Your task to perform on an android device: Search for "macbook pro 15 inch" on walmart, select the first entry, and add it to the cart. Image 0: 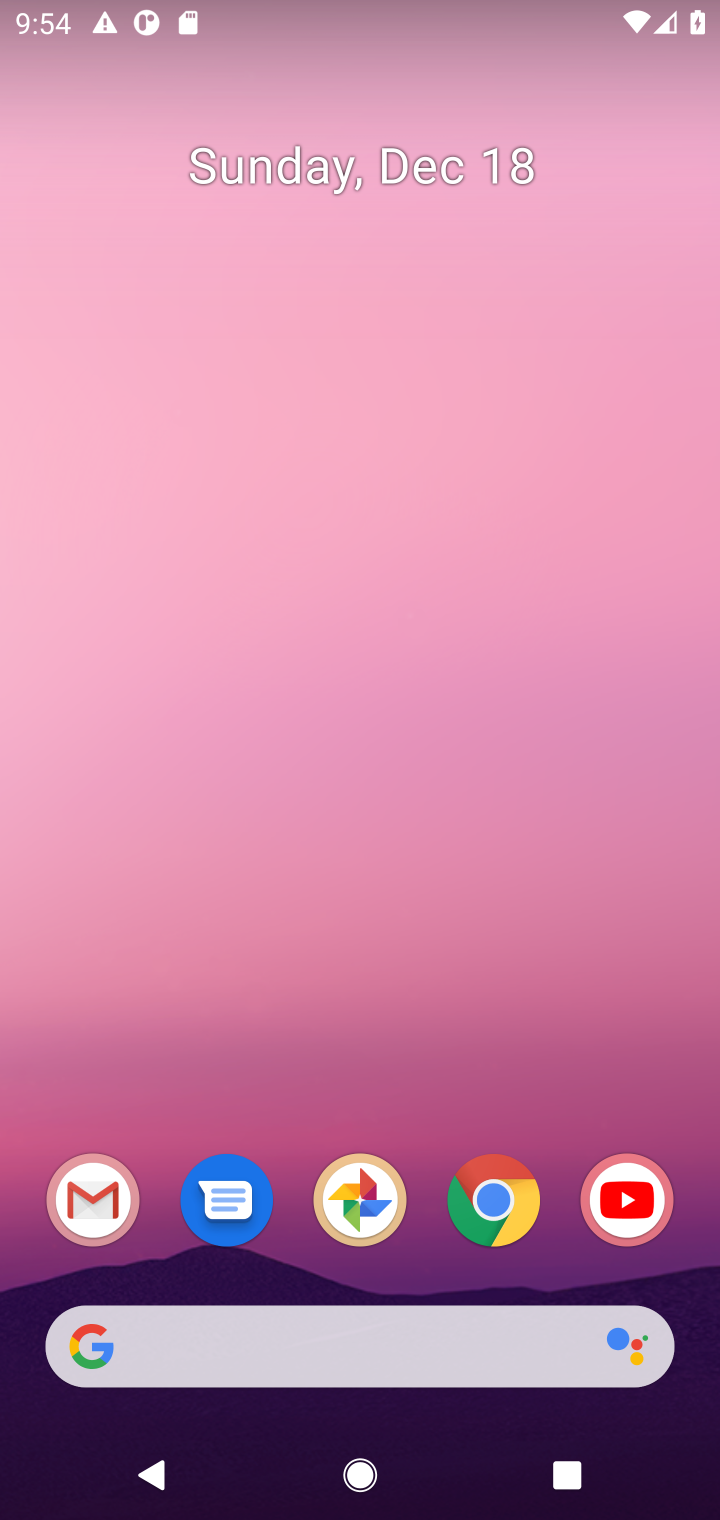
Step 0: click (484, 1215)
Your task to perform on an android device: Search for "macbook pro 15 inch" on walmart, select the first entry, and add it to the cart. Image 1: 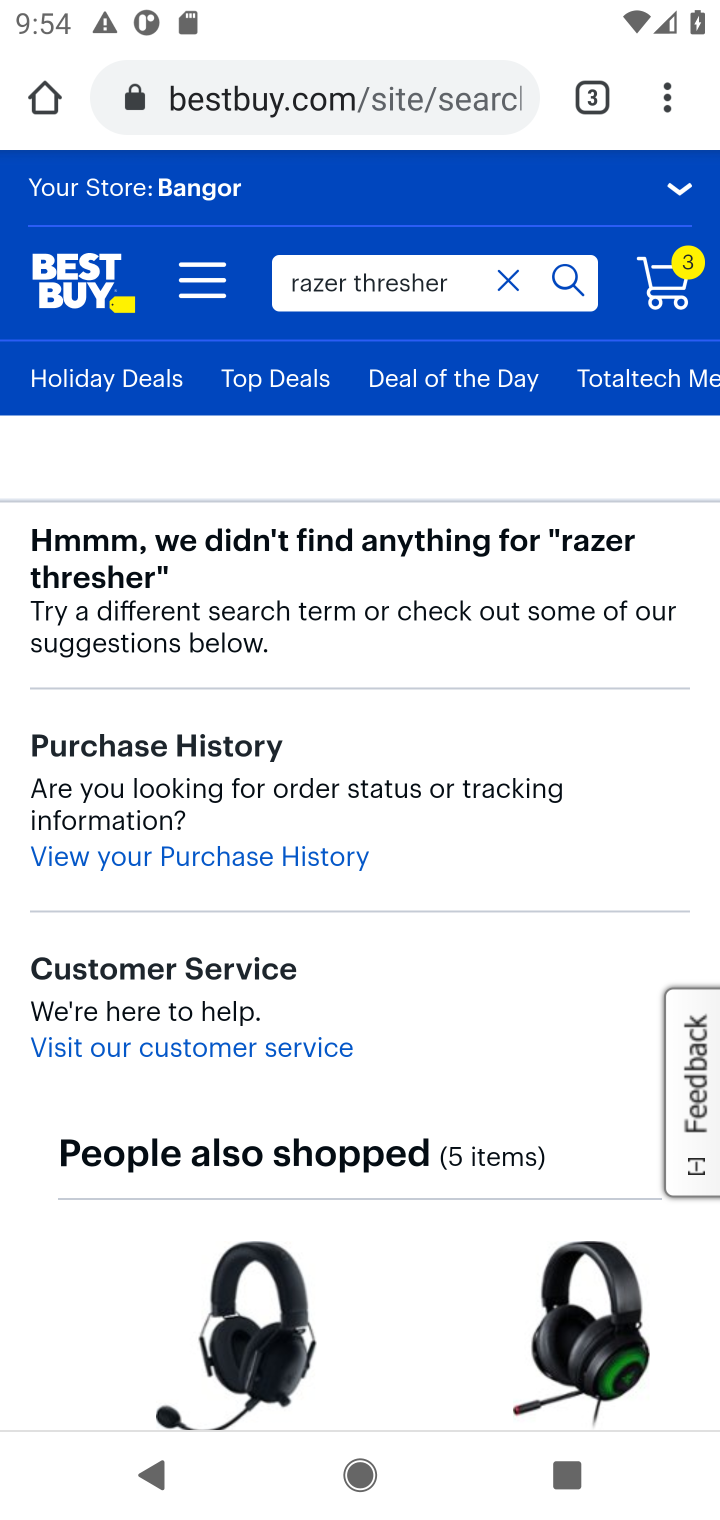
Step 1: click (311, 91)
Your task to perform on an android device: Search for "macbook pro 15 inch" on walmart, select the first entry, and add it to the cart. Image 2: 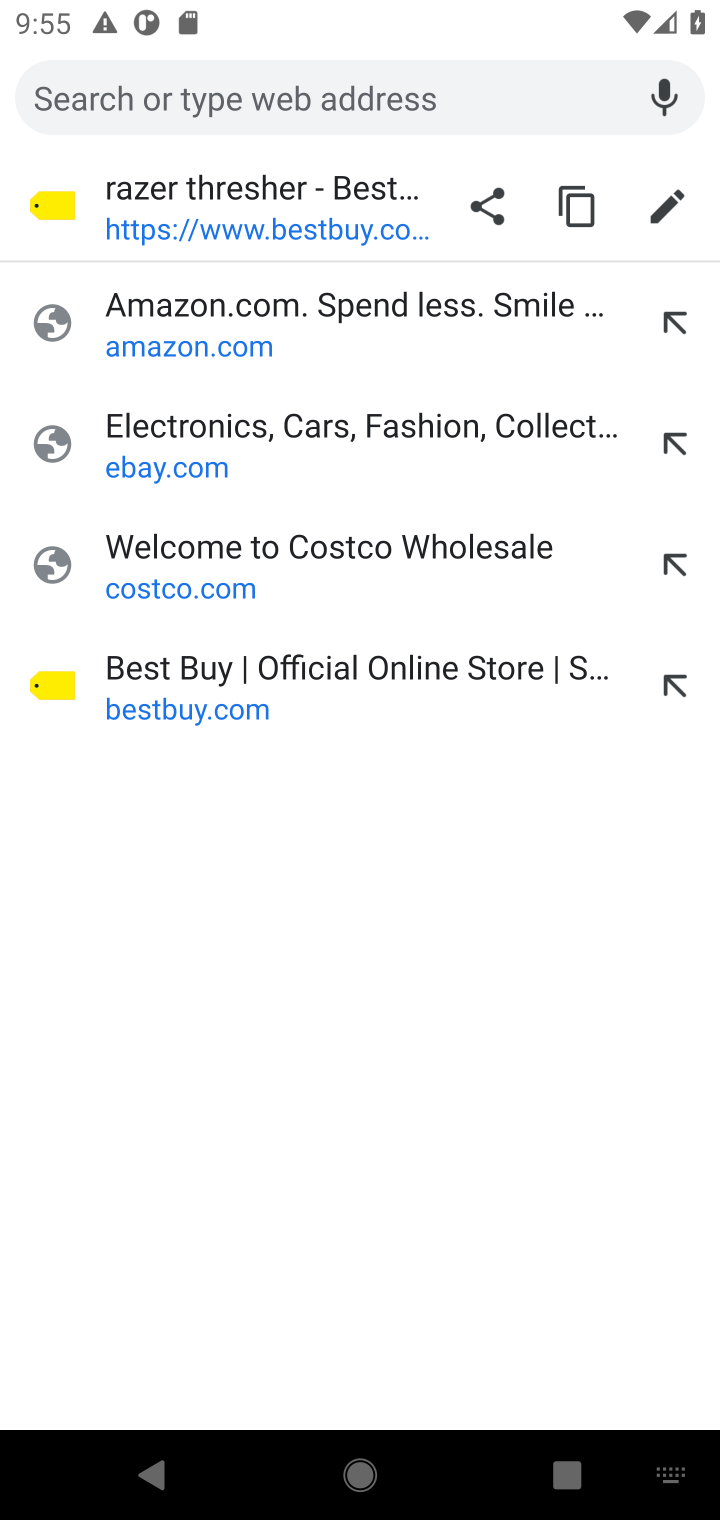
Step 2: type "walmart.com"
Your task to perform on an android device: Search for "macbook pro 15 inch" on walmart, select the first entry, and add it to the cart. Image 3: 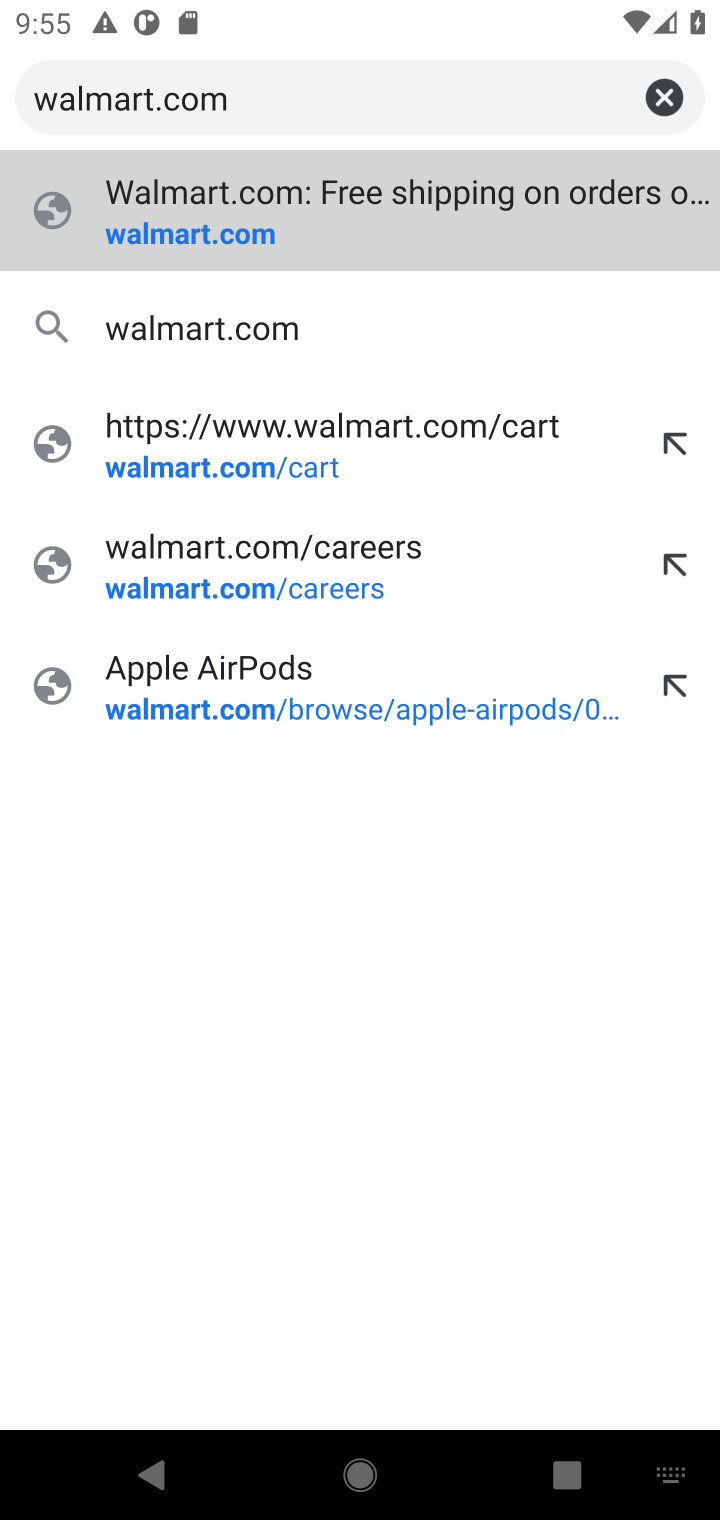
Step 3: click (185, 224)
Your task to perform on an android device: Search for "macbook pro 15 inch" on walmart, select the first entry, and add it to the cart. Image 4: 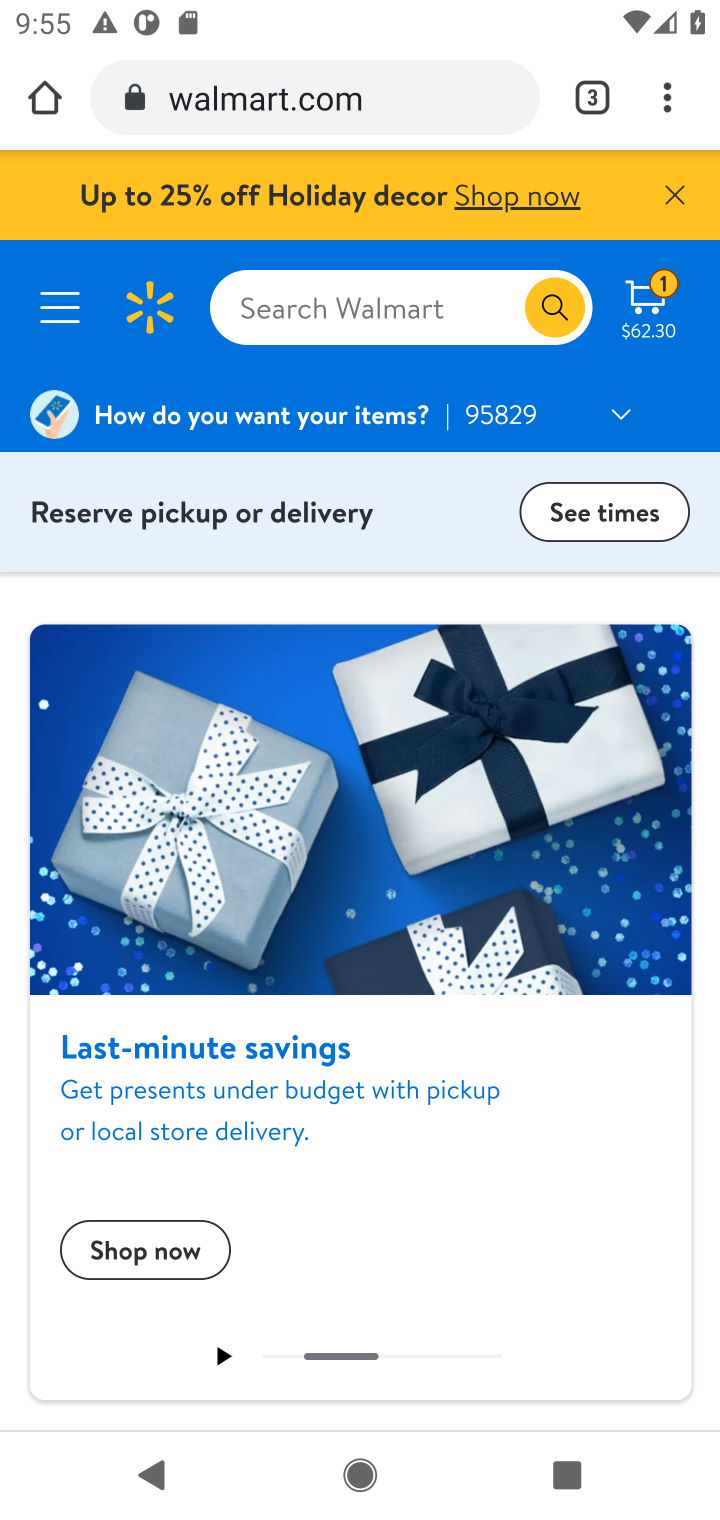
Step 4: click (358, 318)
Your task to perform on an android device: Search for "macbook pro 15 inch" on walmart, select the first entry, and add it to the cart. Image 5: 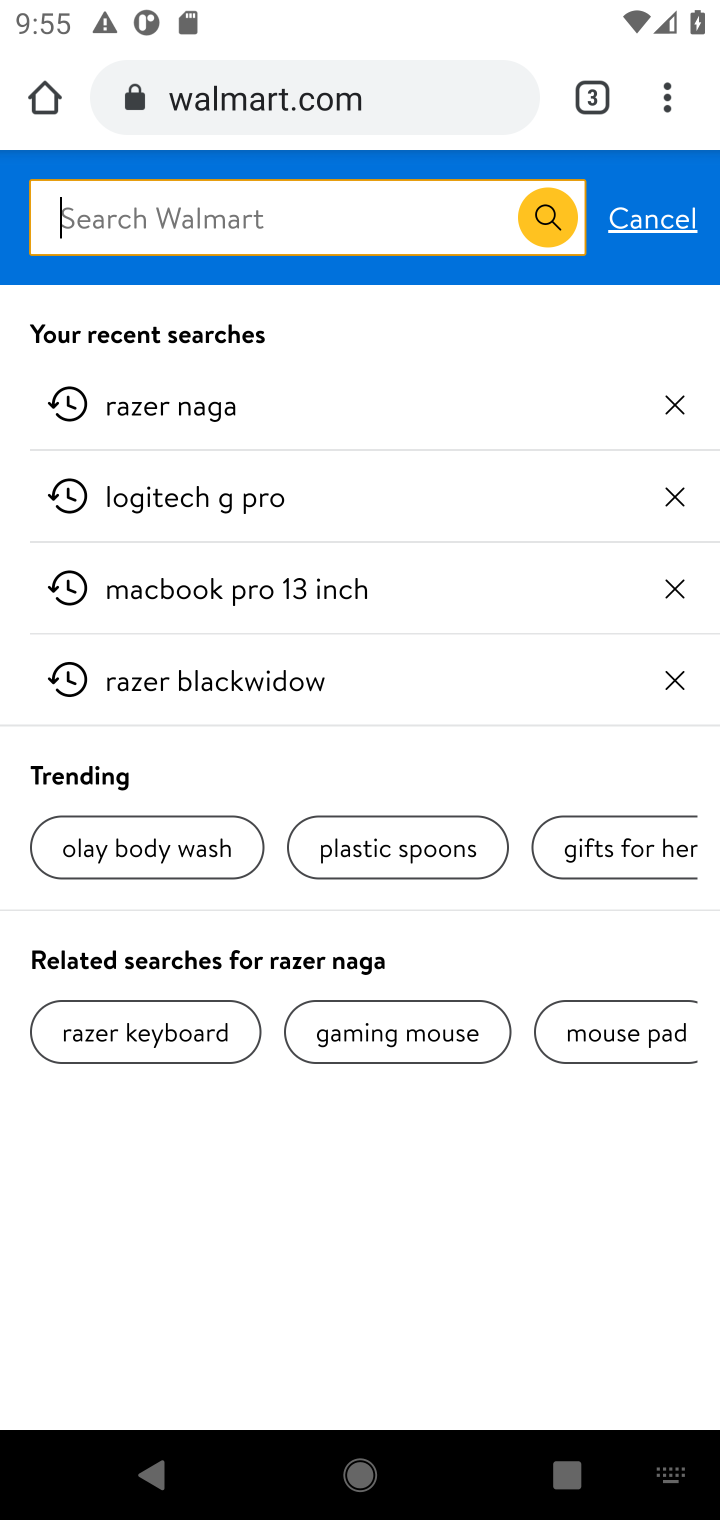
Step 5: type "macbook pro 15 inch"
Your task to perform on an android device: Search for "macbook pro 15 inch" on walmart, select the first entry, and add it to the cart. Image 6: 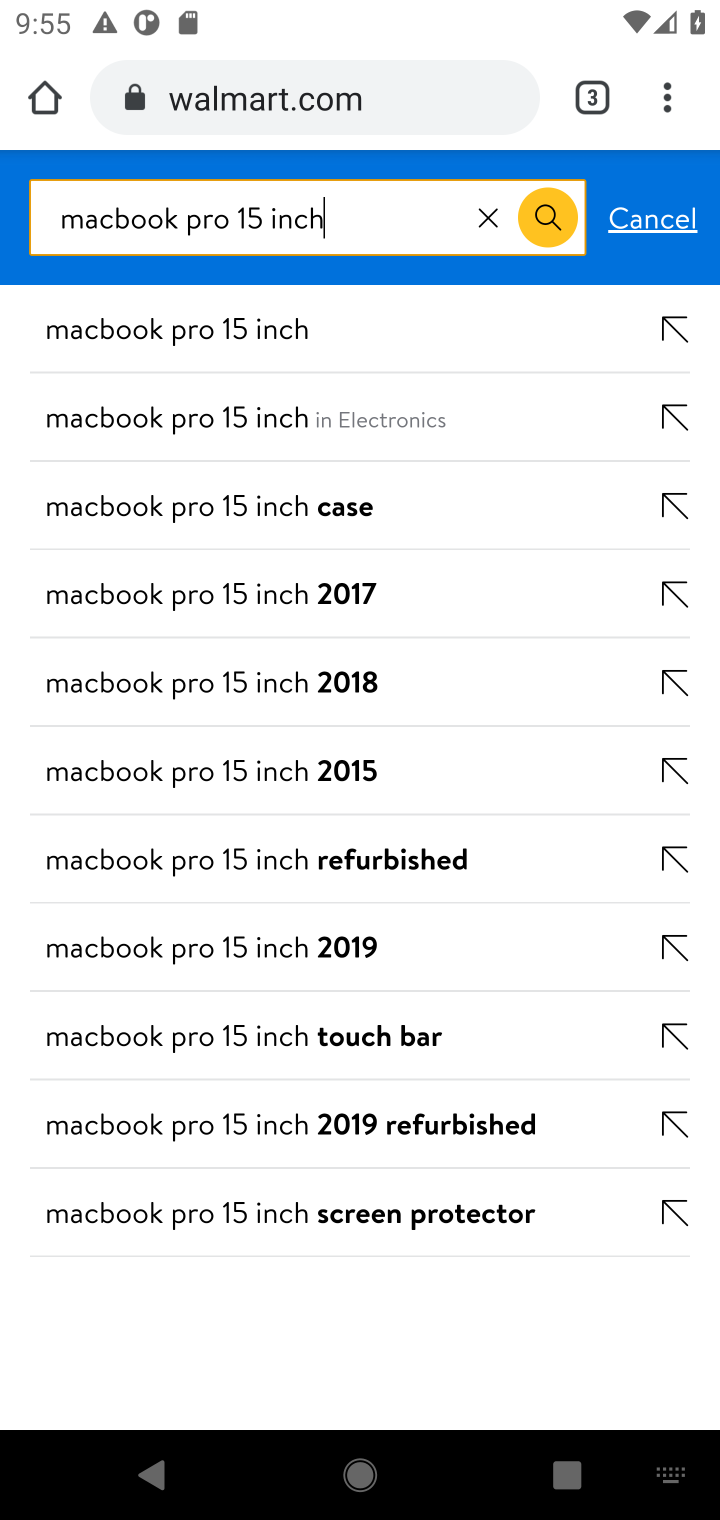
Step 6: click (201, 328)
Your task to perform on an android device: Search for "macbook pro 15 inch" on walmart, select the first entry, and add it to the cart. Image 7: 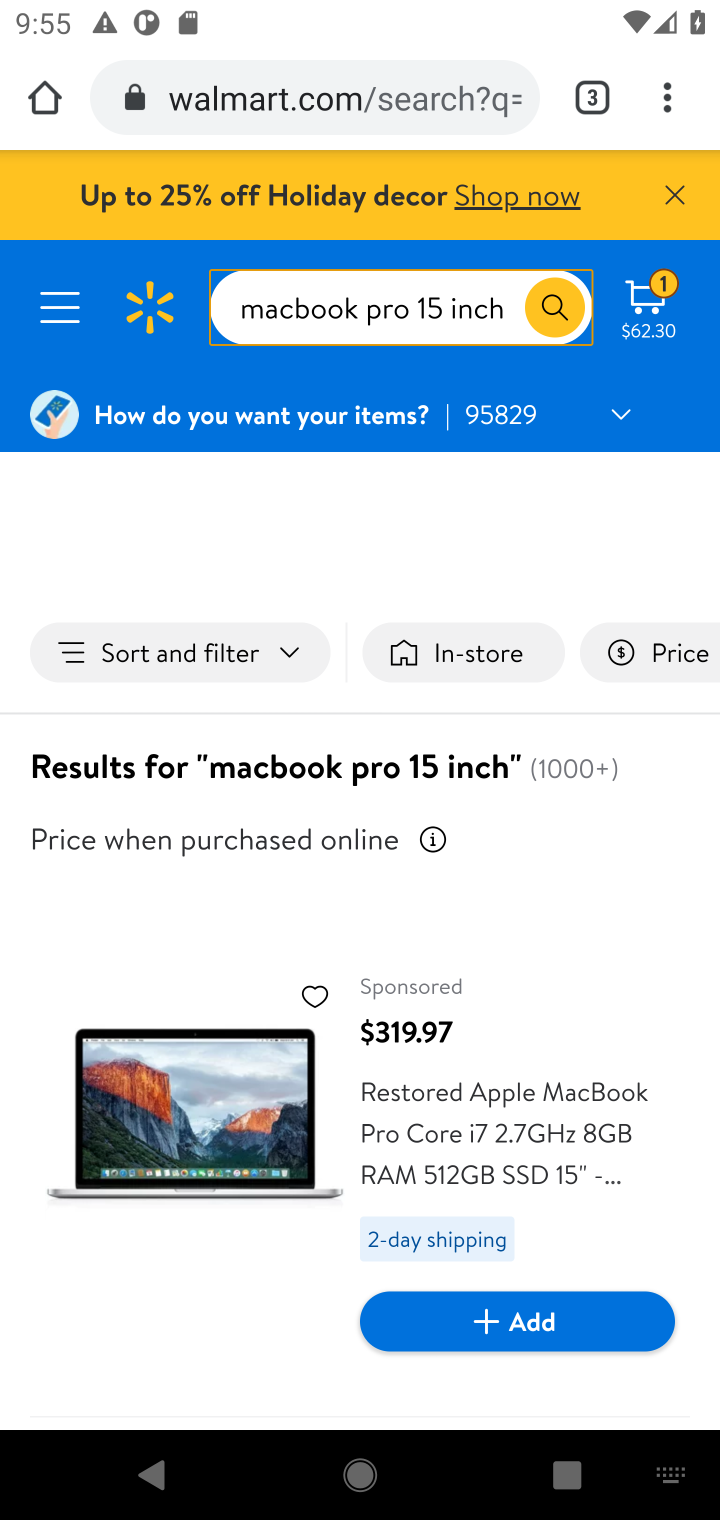
Step 7: drag from (279, 927) to (237, 505)
Your task to perform on an android device: Search for "macbook pro 15 inch" on walmart, select the first entry, and add it to the cart. Image 8: 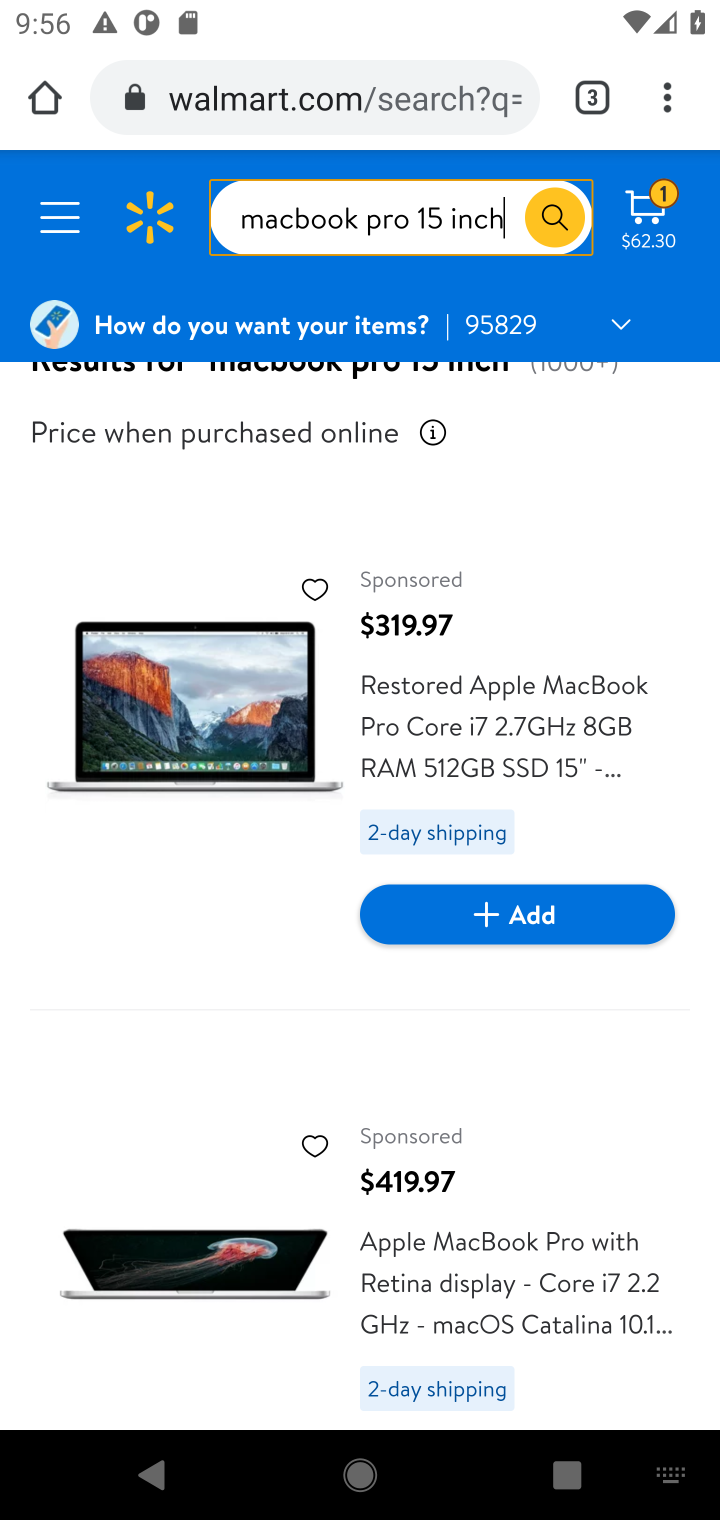
Step 8: click (480, 745)
Your task to perform on an android device: Search for "macbook pro 15 inch" on walmart, select the first entry, and add it to the cart. Image 9: 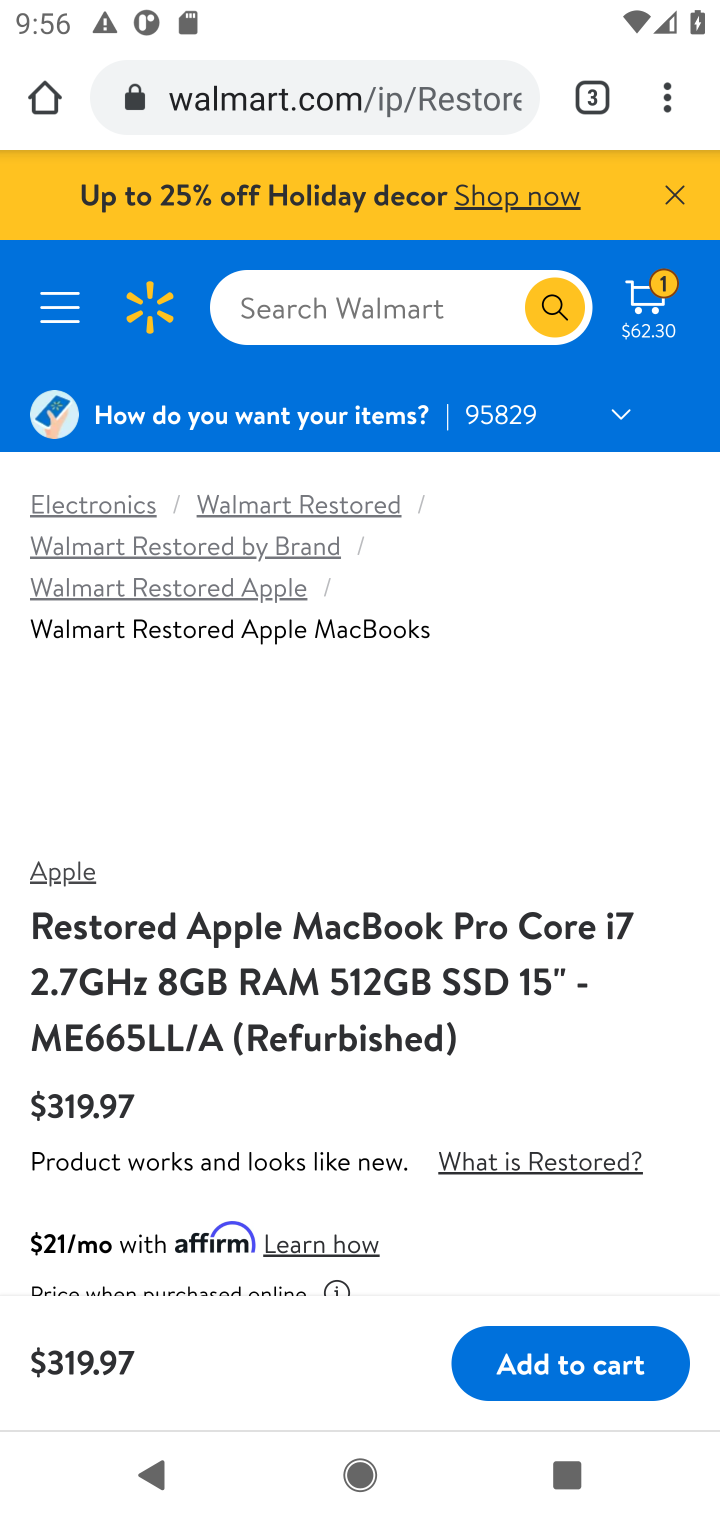
Step 9: click (563, 1354)
Your task to perform on an android device: Search for "macbook pro 15 inch" on walmart, select the first entry, and add it to the cart. Image 10: 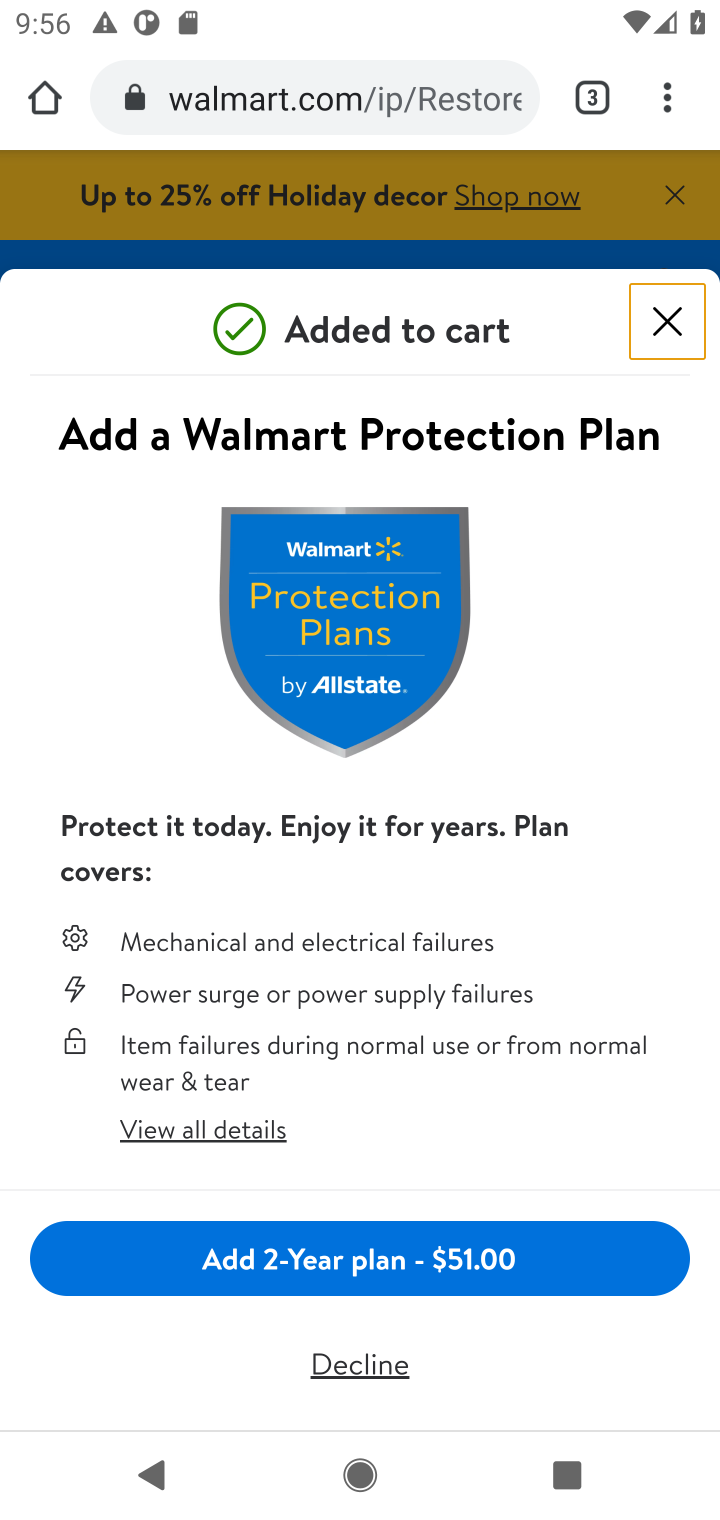
Step 10: task complete